Your task to perform on an android device: Go to Yahoo.com Image 0: 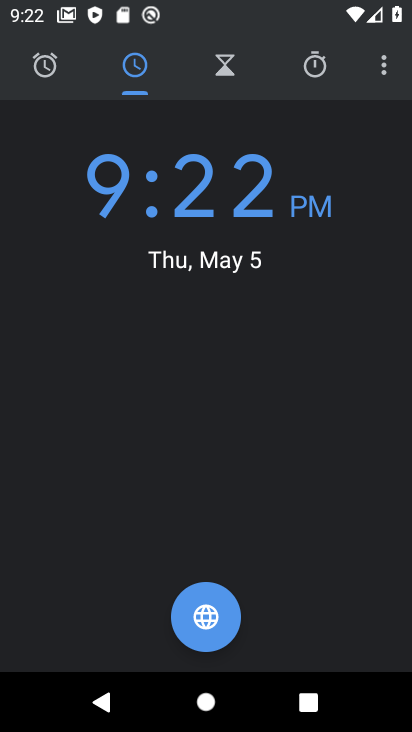
Step 0: press home button
Your task to perform on an android device: Go to Yahoo.com Image 1: 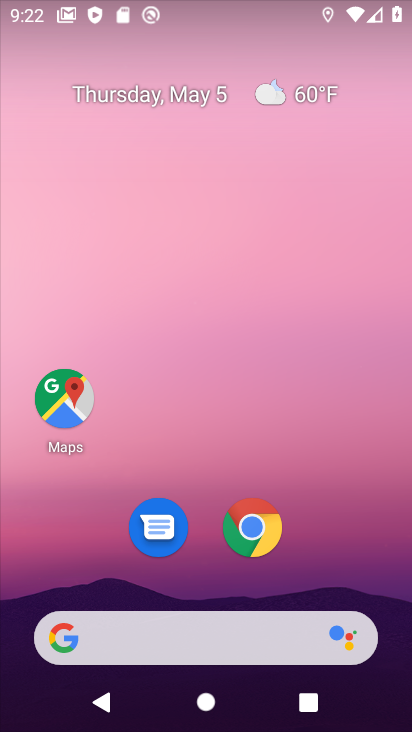
Step 1: click (233, 506)
Your task to perform on an android device: Go to Yahoo.com Image 2: 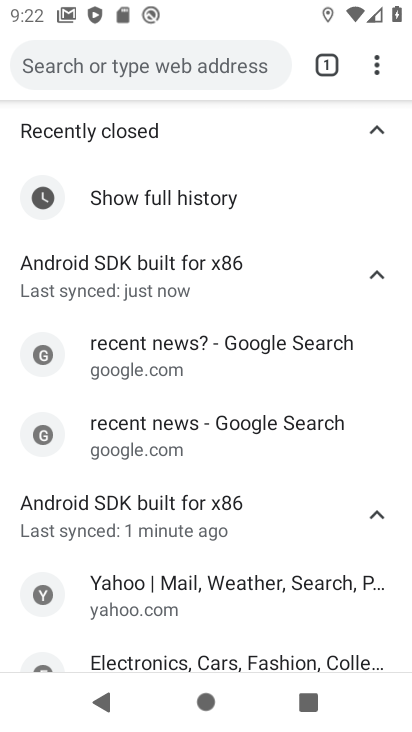
Step 2: press back button
Your task to perform on an android device: Go to Yahoo.com Image 3: 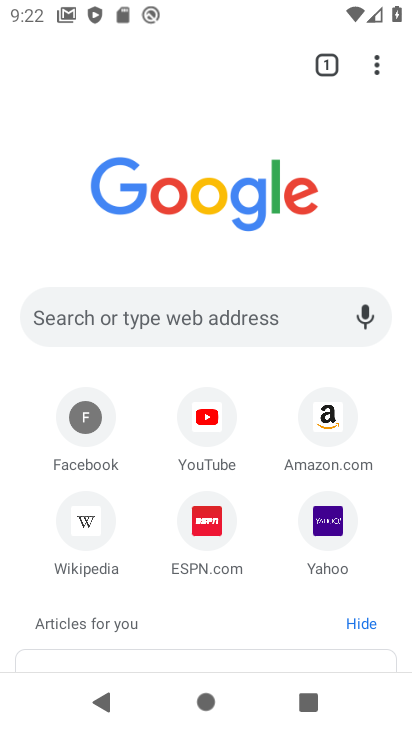
Step 3: click (332, 529)
Your task to perform on an android device: Go to Yahoo.com Image 4: 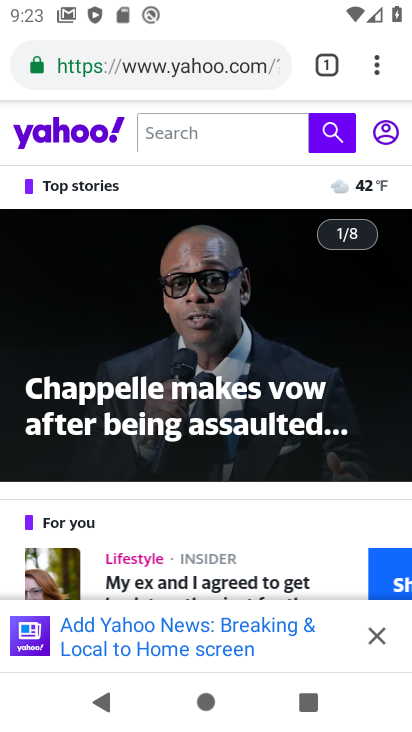
Step 4: task complete